Your task to perform on an android device: install app "Google Play Music" Image 0: 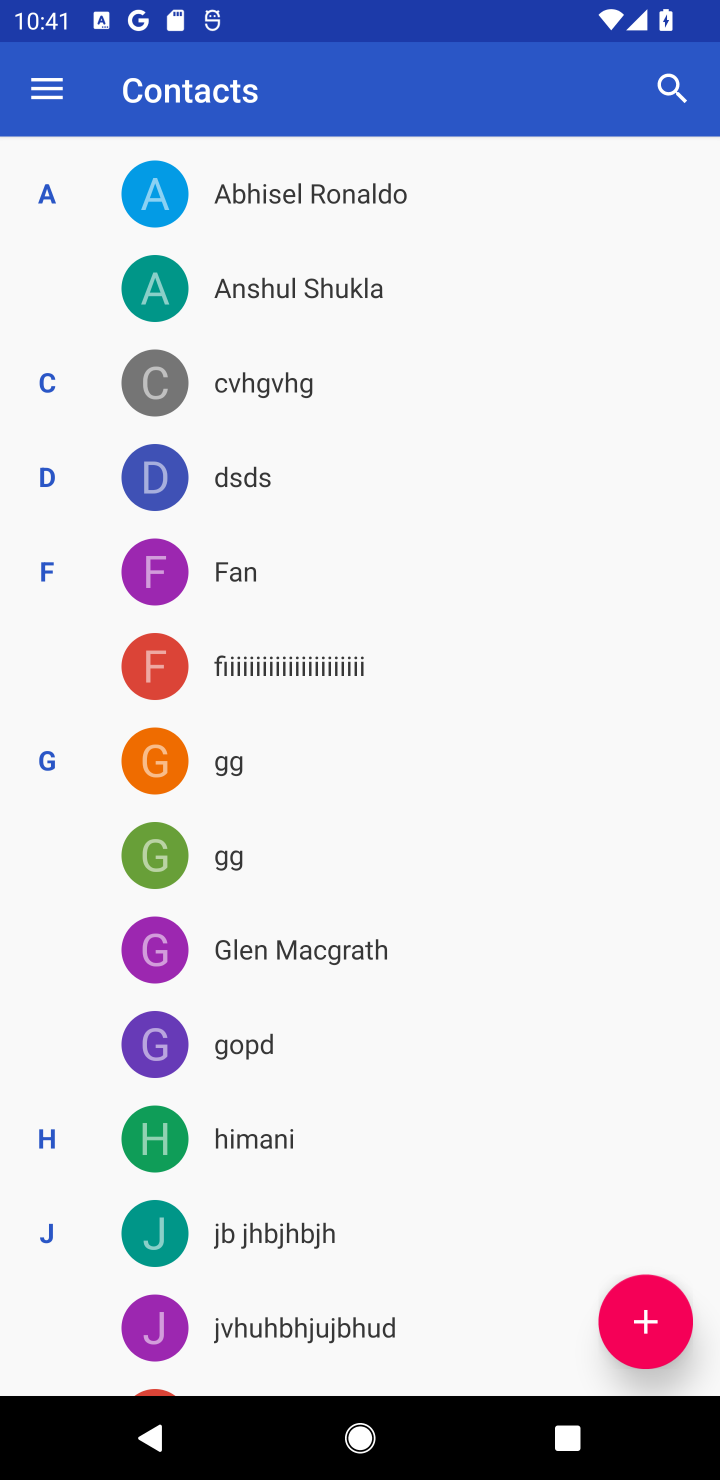
Step 0: press back button
Your task to perform on an android device: install app "Google Play Music" Image 1: 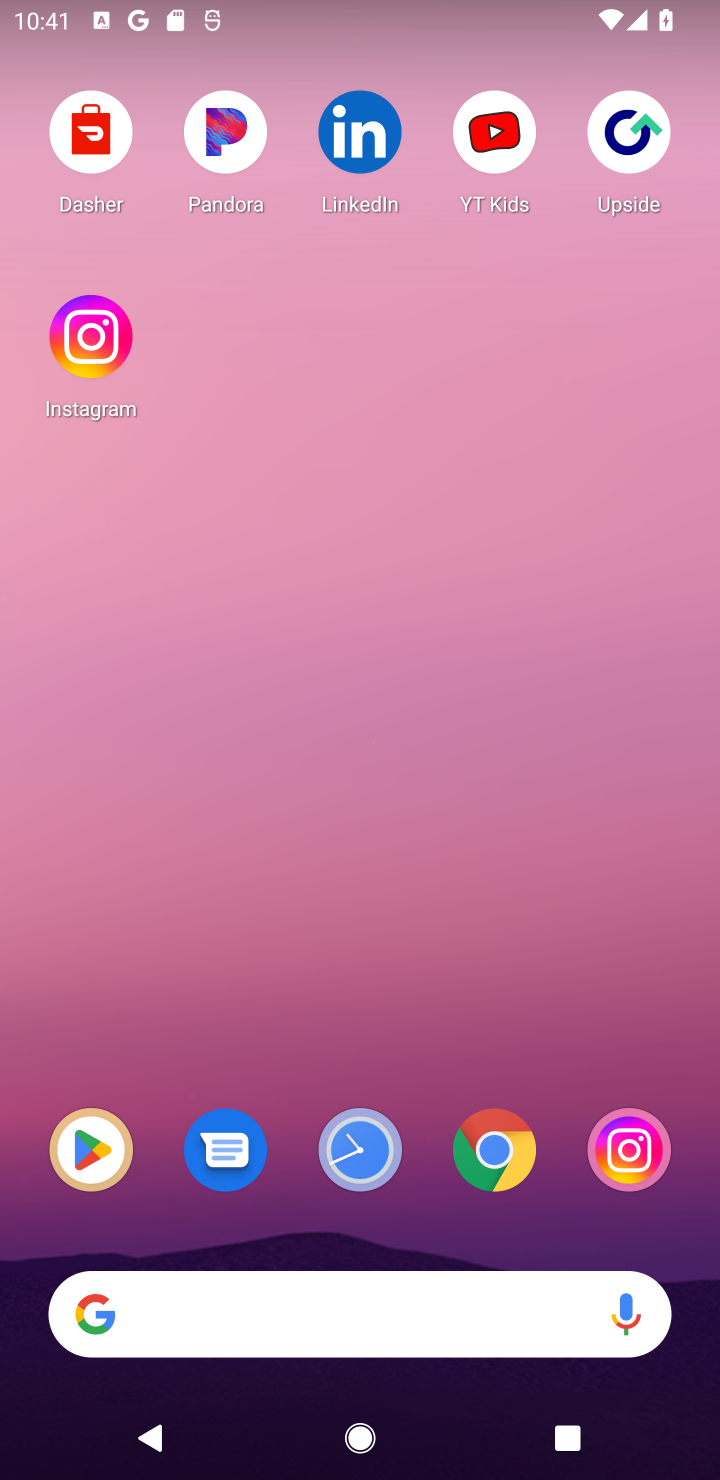
Step 1: click (77, 1153)
Your task to perform on an android device: install app "Google Play Music" Image 2: 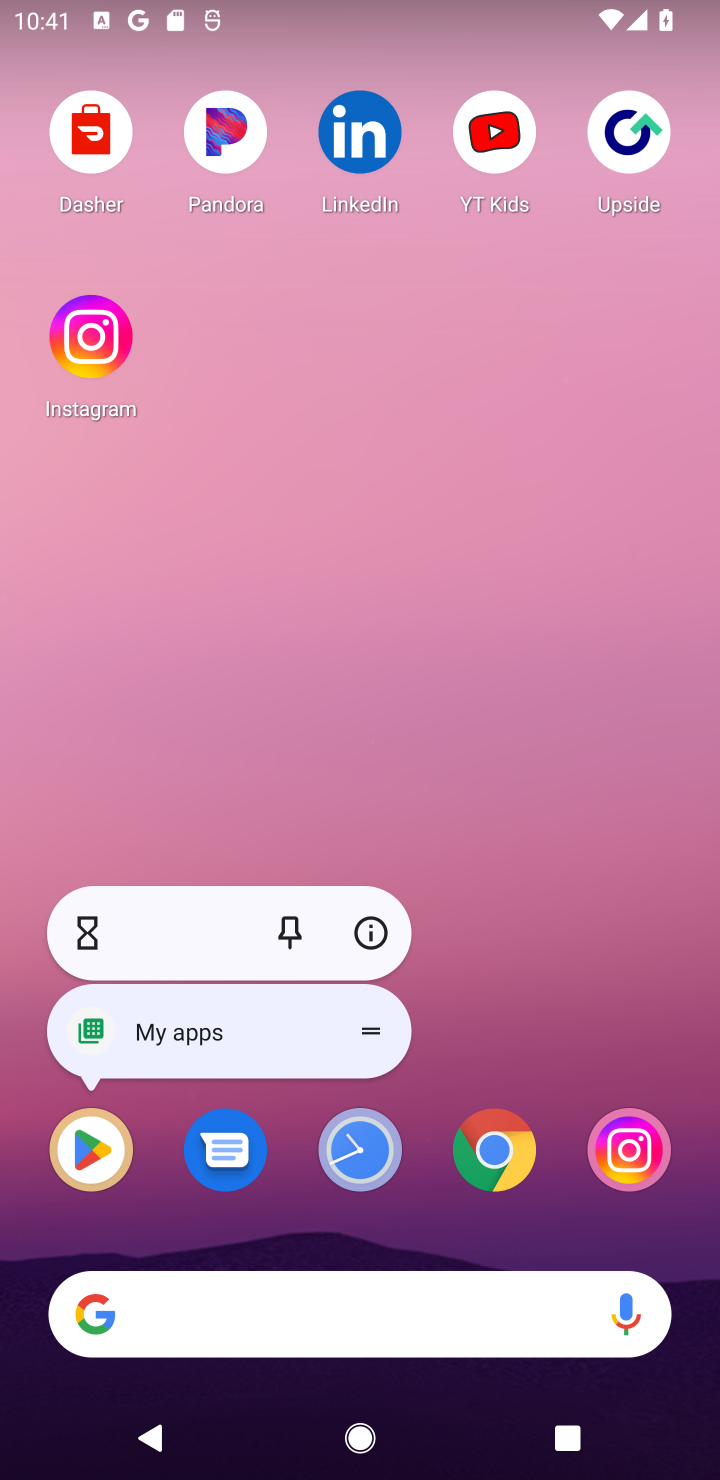
Step 2: click (93, 1153)
Your task to perform on an android device: install app "Google Play Music" Image 3: 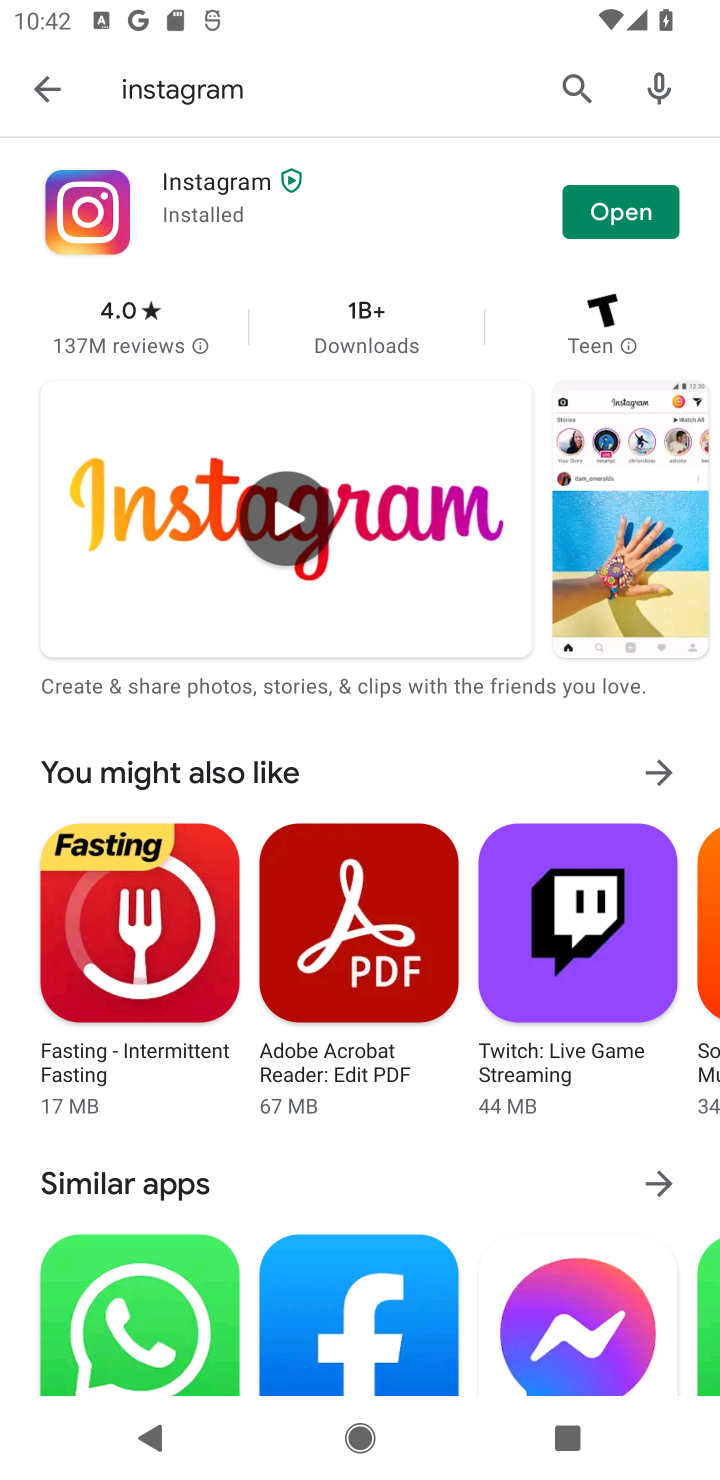
Step 3: click (565, 104)
Your task to perform on an android device: install app "Google Play Music" Image 4: 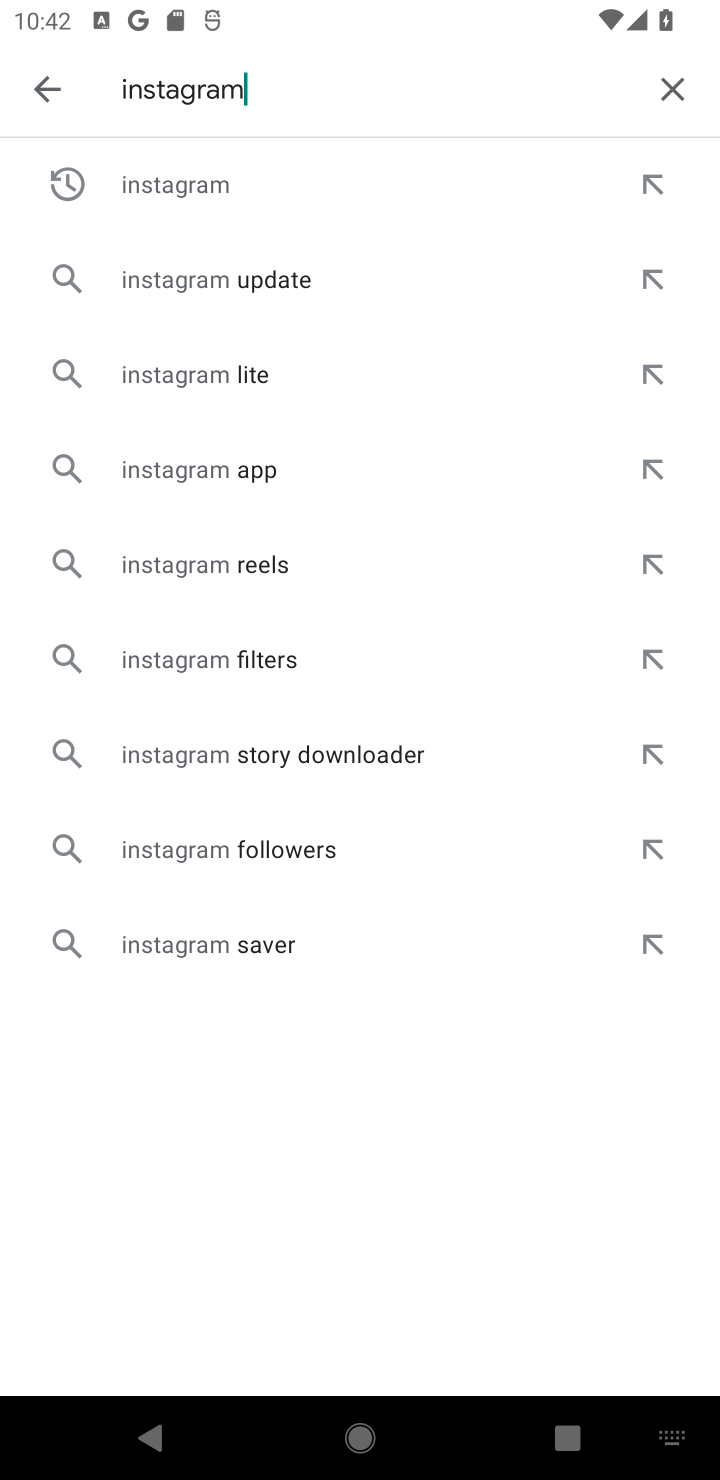
Step 4: click (700, 78)
Your task to perform on an android device: install app "Google Play Music" Image 5: 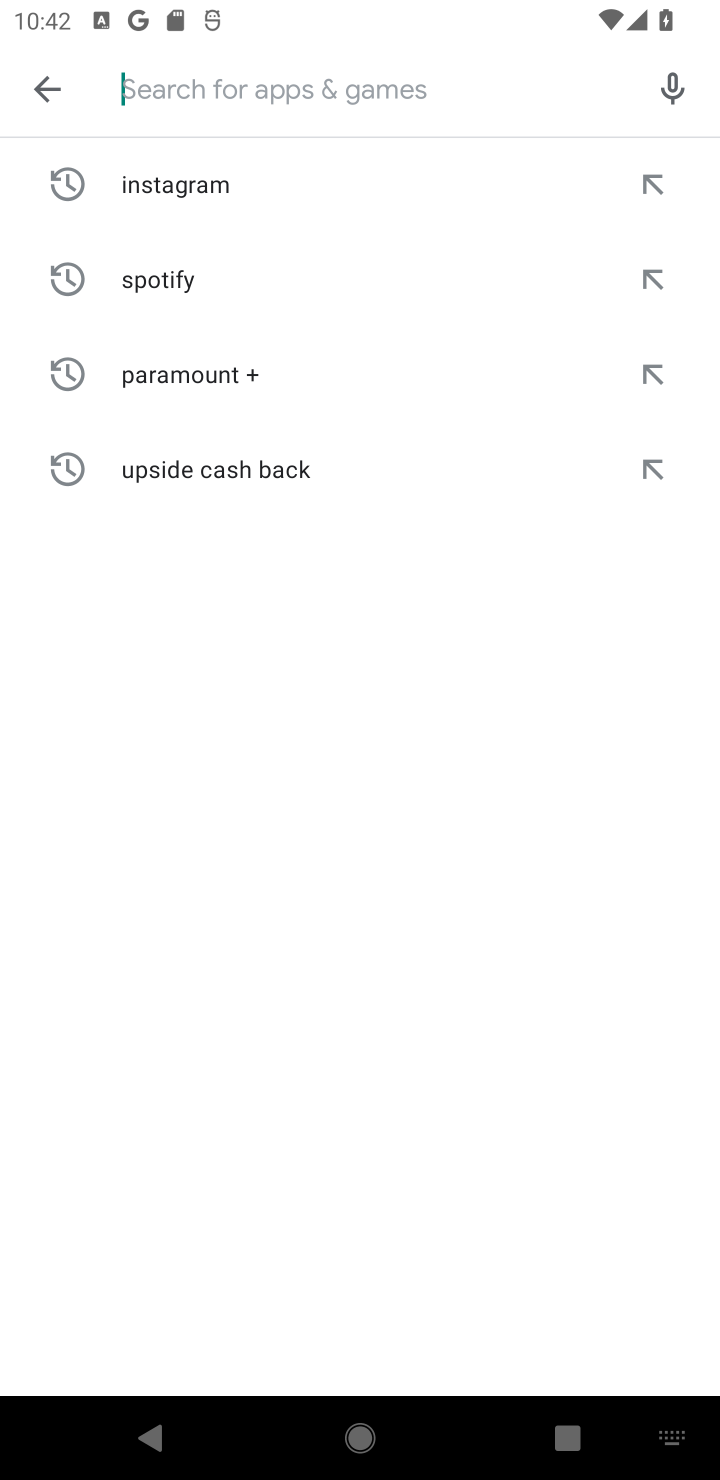
Step 5: click (217, 95)
Your task to perform on an android device: install app "Google Play Music" Image 6: 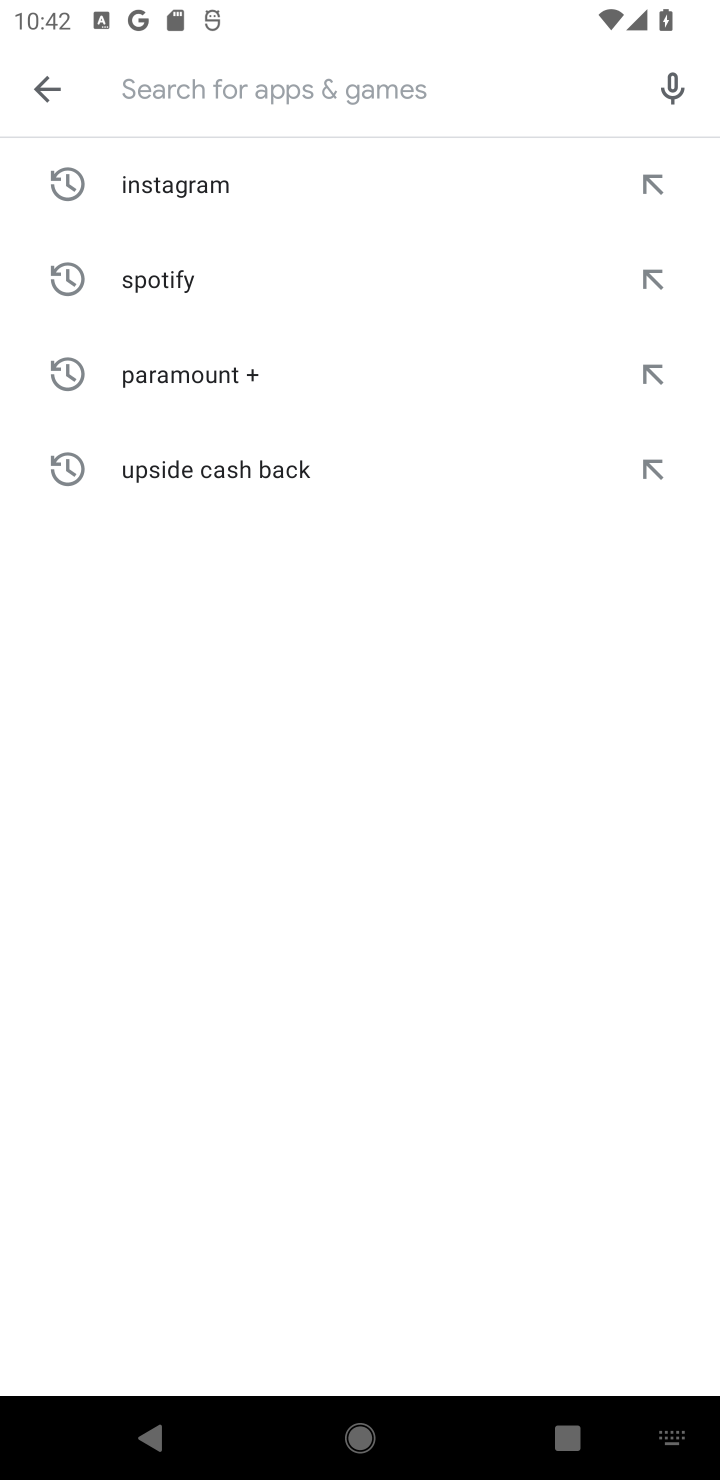
Step 6: type "google play music"
Your task to perform on an android device: install app "Google Play Music" Image 7: 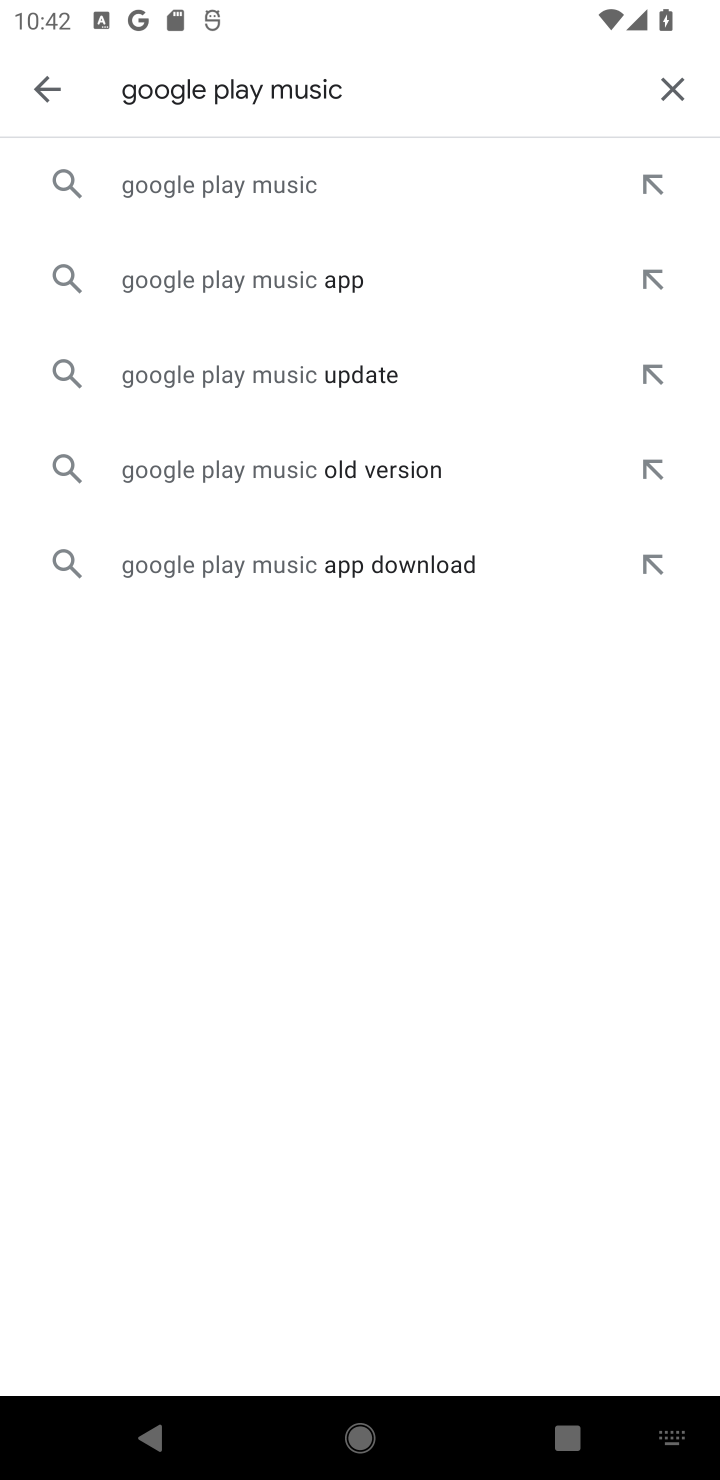
Step 7: click (281, 183)
Your task to perform on an android device: install app "Google Play Music" Image 8: 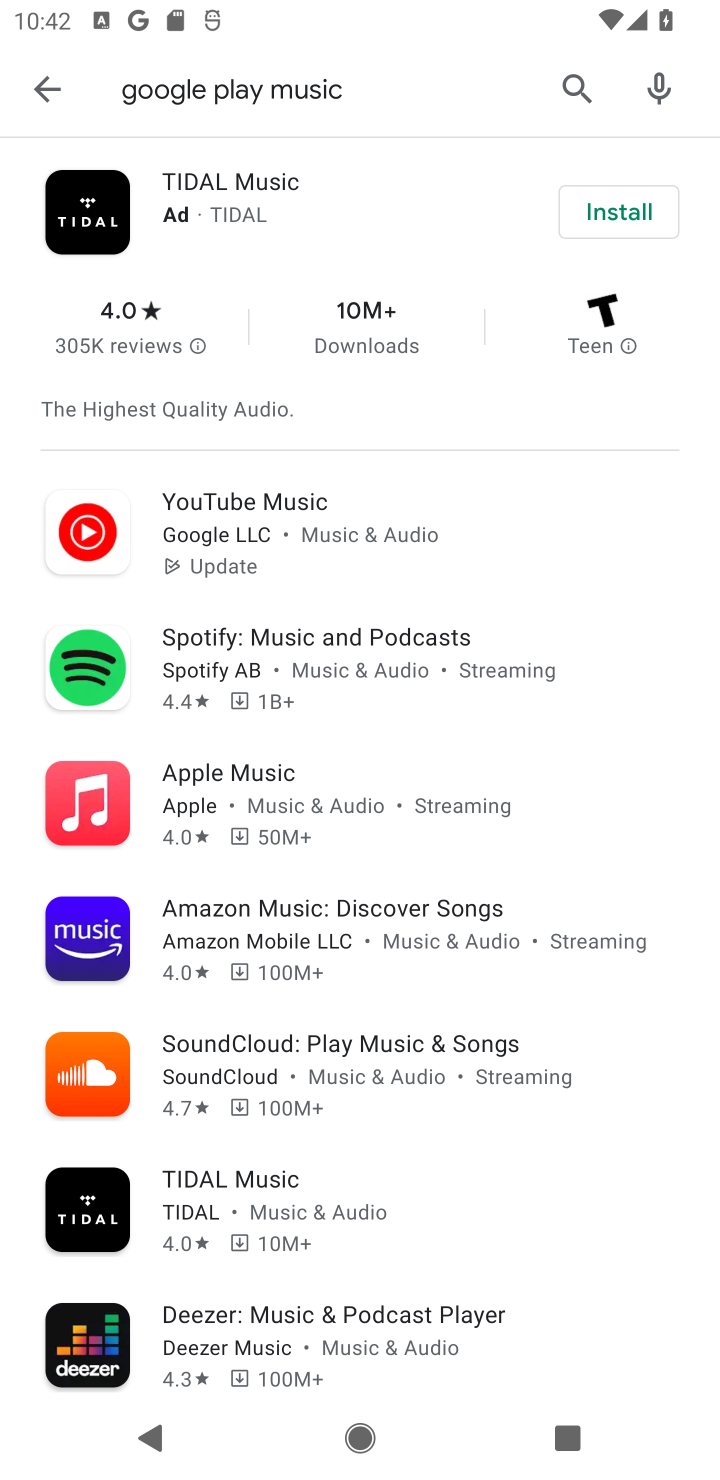
Step 8: task complete